Your task to perform on an android device: turn notification dots off Image 0: 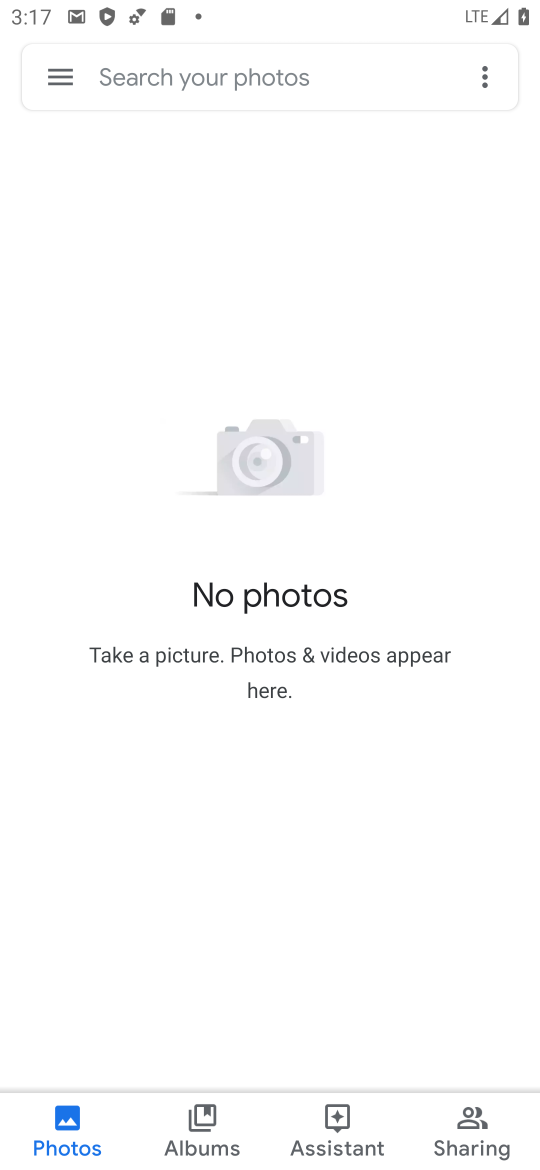
Step 0: press home button
Your task to perform on an android device: turn notification dots off Image 1: 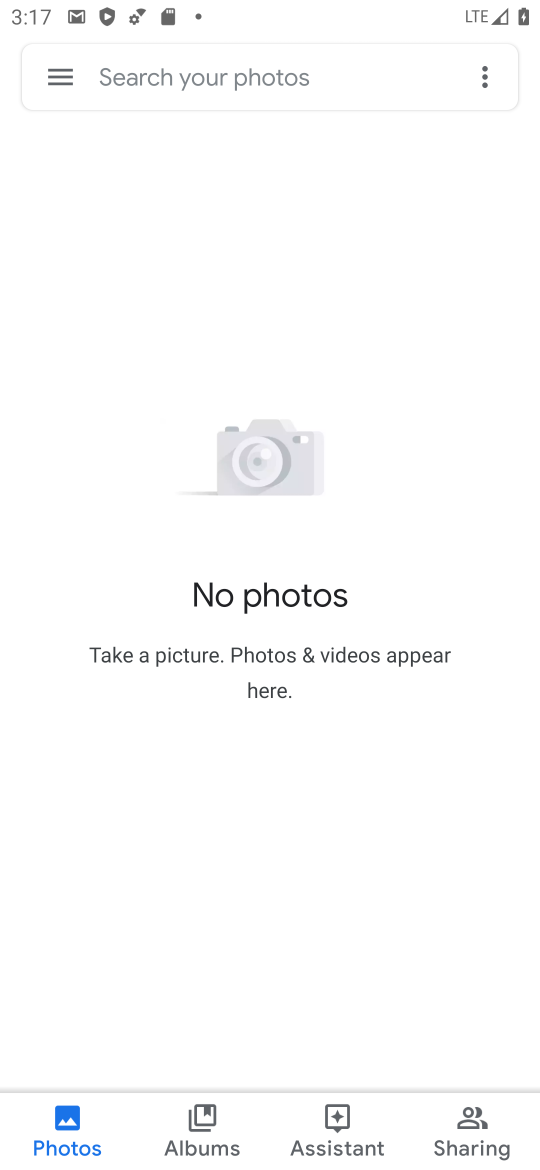
Step 1: press home button
Your task to perform on an android device: turn notification dots off Image 2: 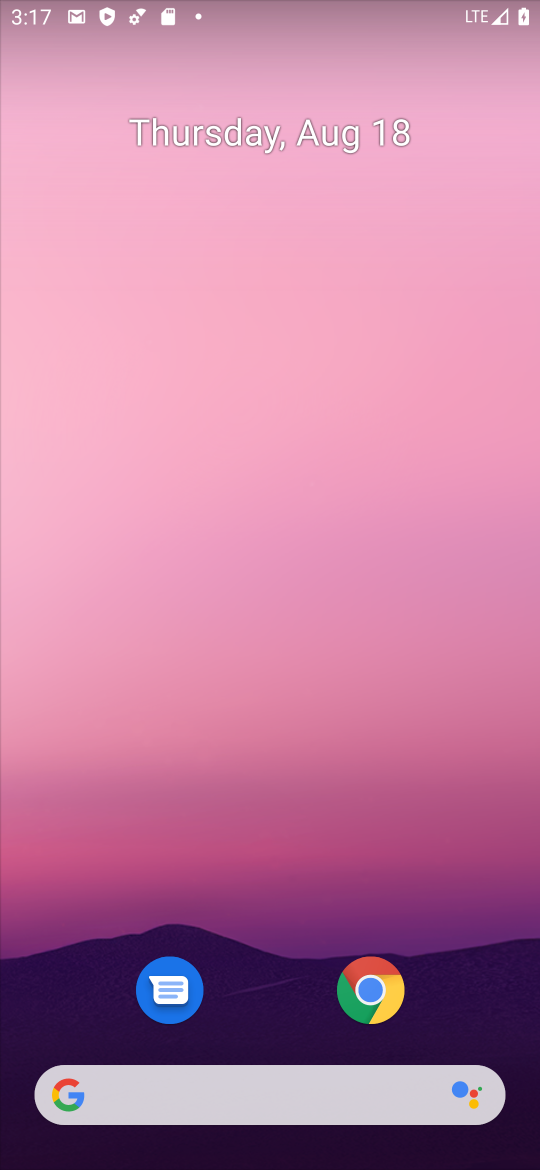
Step 2: press home button
Your task to perform on an android device: turn notification dots off Image 3: 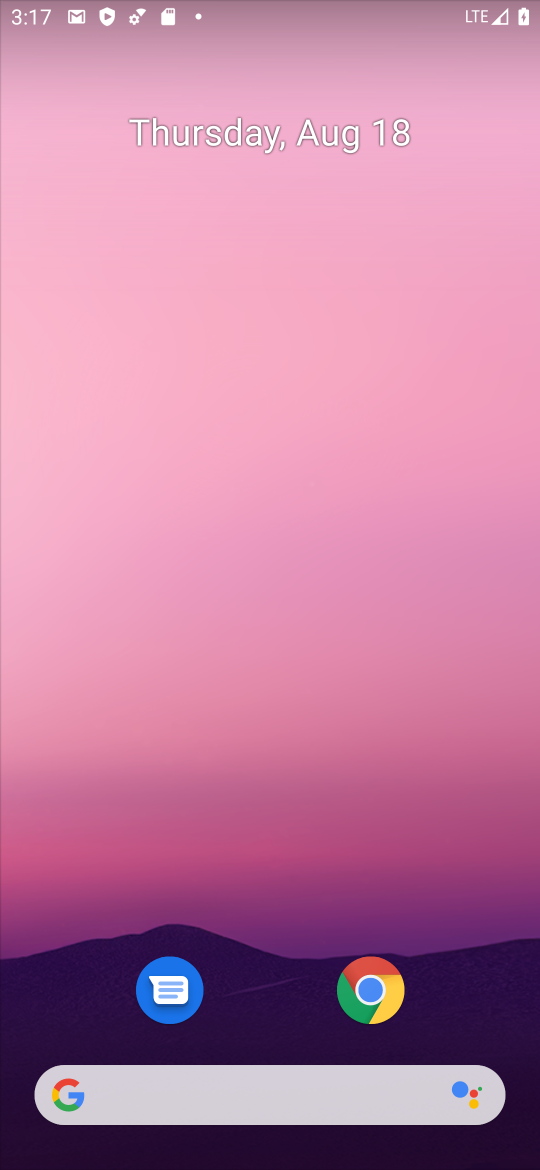
Step 3: press home button
Your task to perform on an android device: turn notification dots off Image 4: 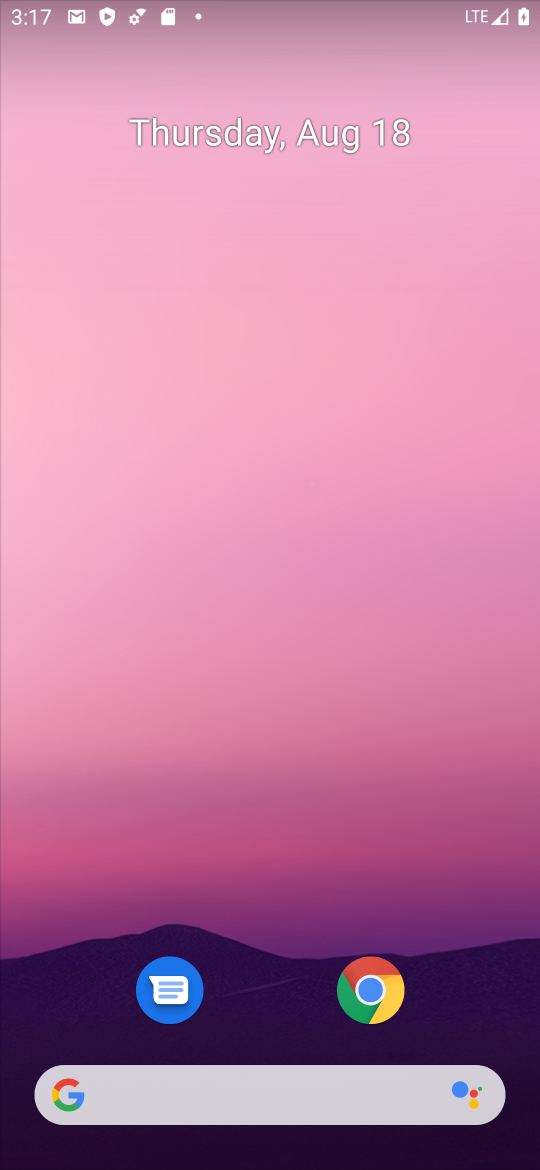
Step 4: drag from (273, 781) to (402, 73)
Your task to perform on an android device: turn notification dots off Image 5: 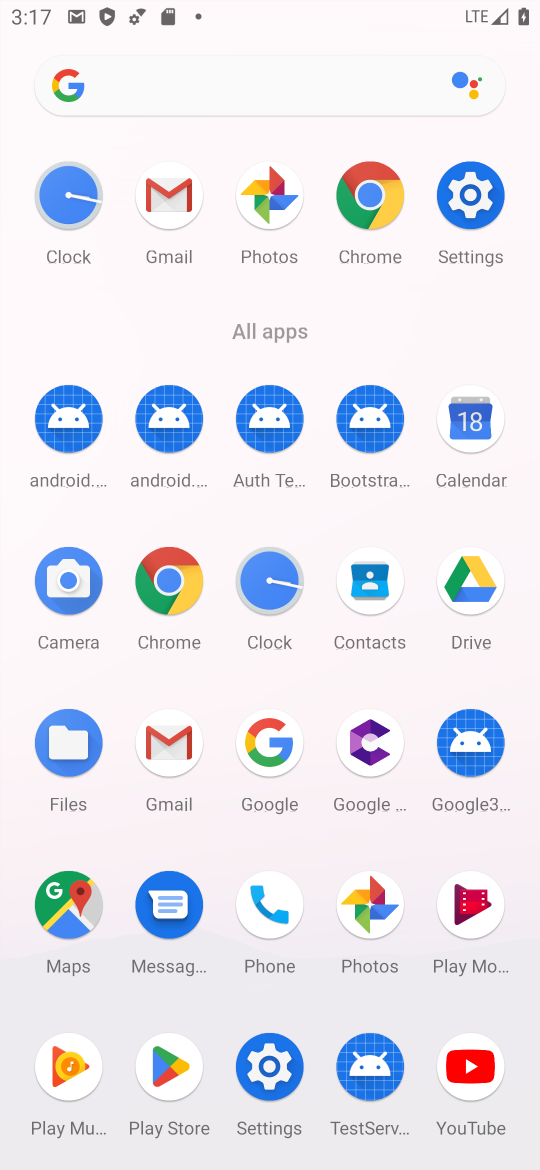
Step 5: click (267, 1067)
Your task to perform on an android device: turn notification dots off Image 6: 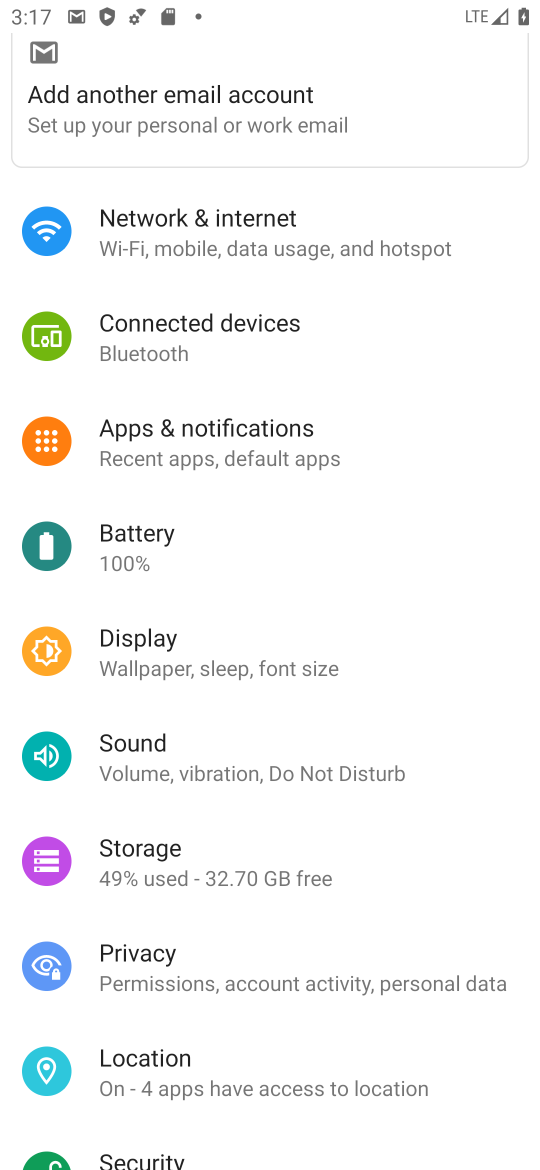
Step 6: click (275, 449)
Your task to perform on an android device: turn notification dots off Image 7: 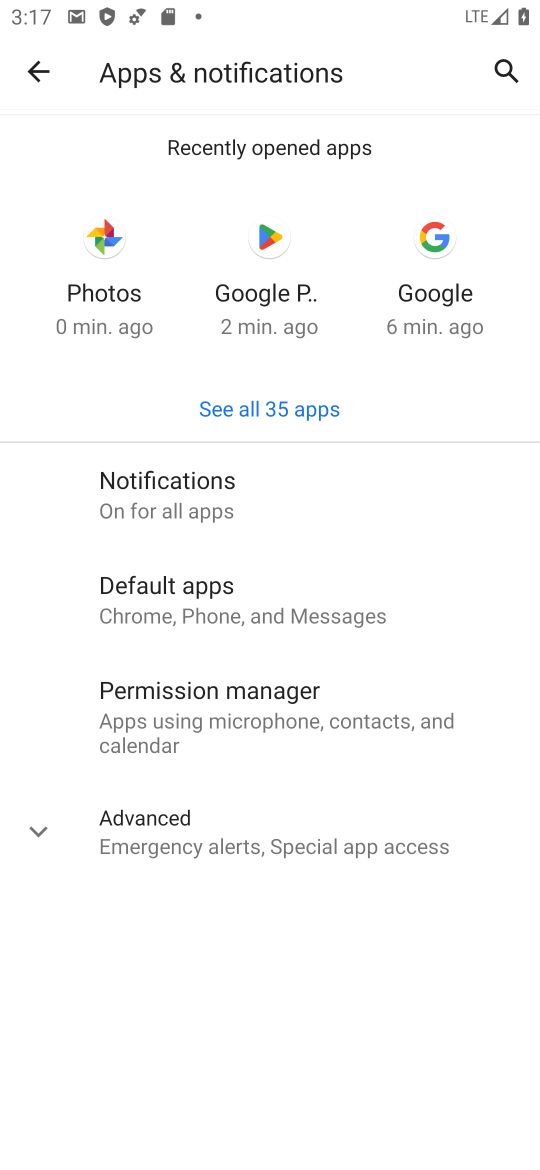
Step 7: click (208, 488)
Your task to perform on an android device: turn notification dots off Image 8: 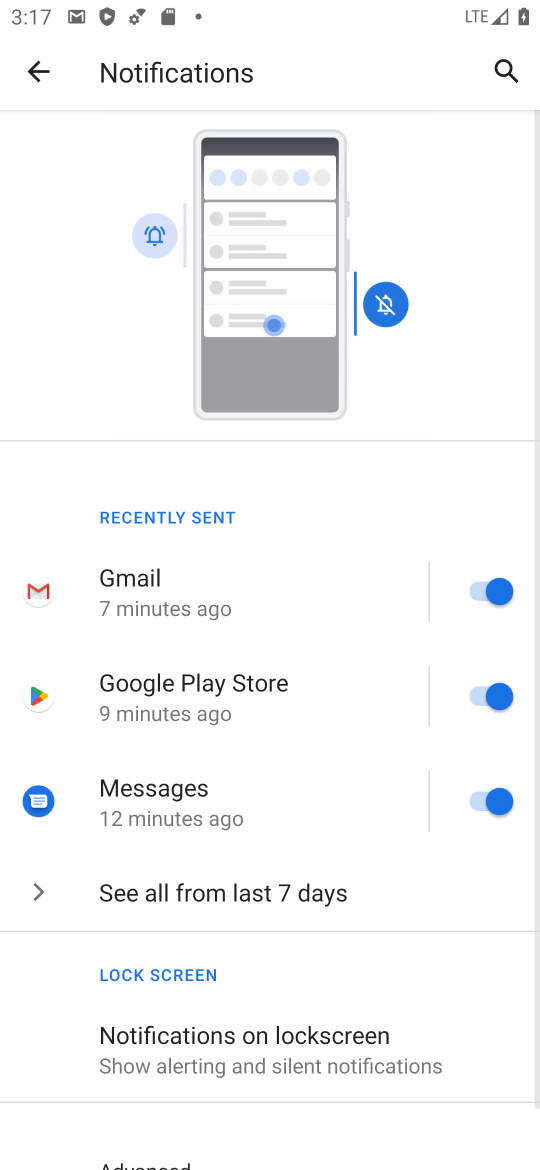
Step 8: drag from (361, 1004) to (413, 401)
Your task to perform on an android device: turn notification dots off Image 9: 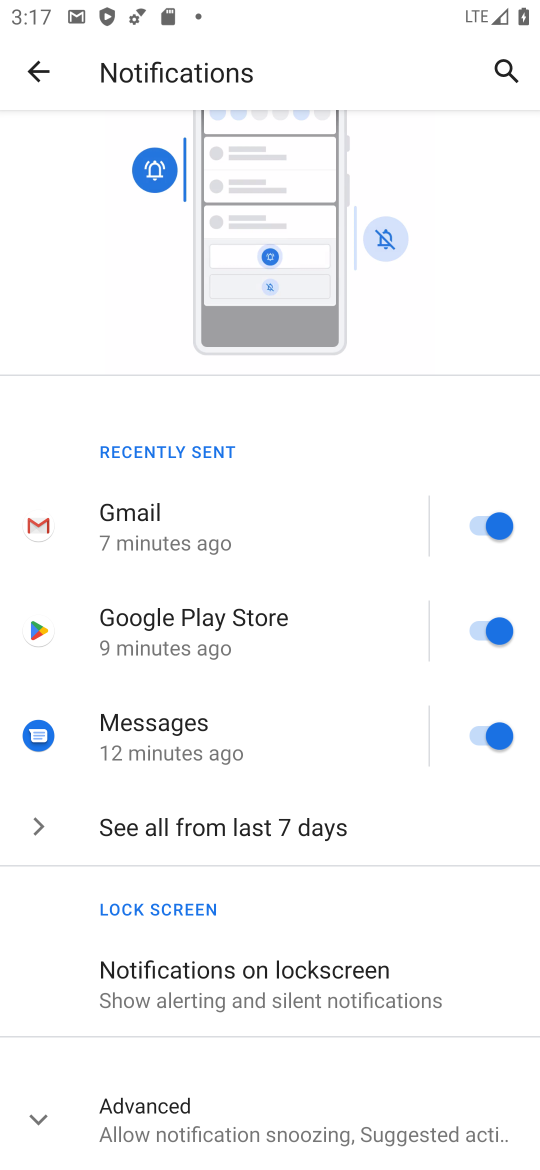
Step 9: click (124, 1146)
Your task to perform on an android device: turn notification dots off Image 10: 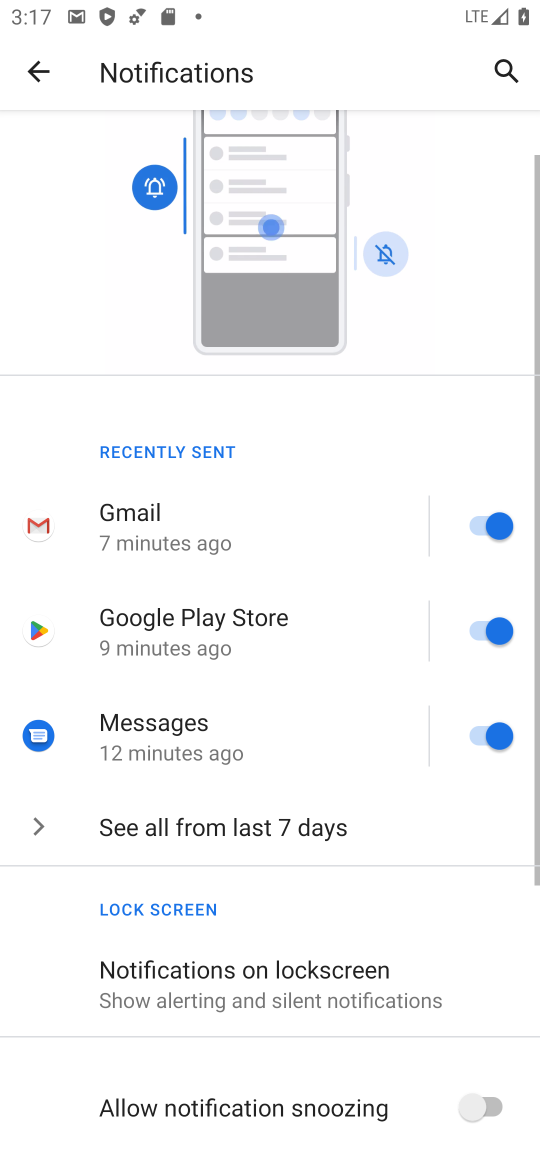
Step 10: task complete